Your task to perform on an android device: Open Wikipedia Image 0: 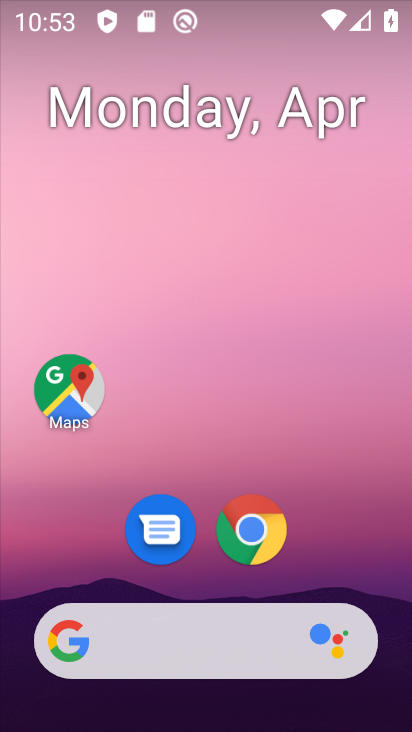
Step 0: drag from (391, 592) to (262, 66)
Your task to perform on an android device: Open Wikipedia Image 1: 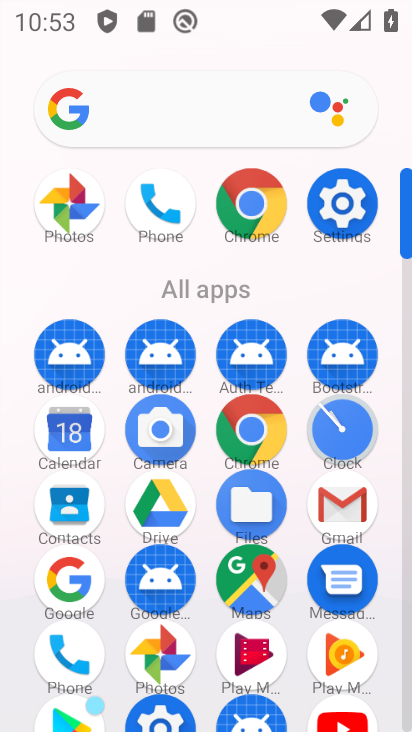
Step 1: click (261, 228)
Your task to perform on an android device: Open Wikipedia Image 2: 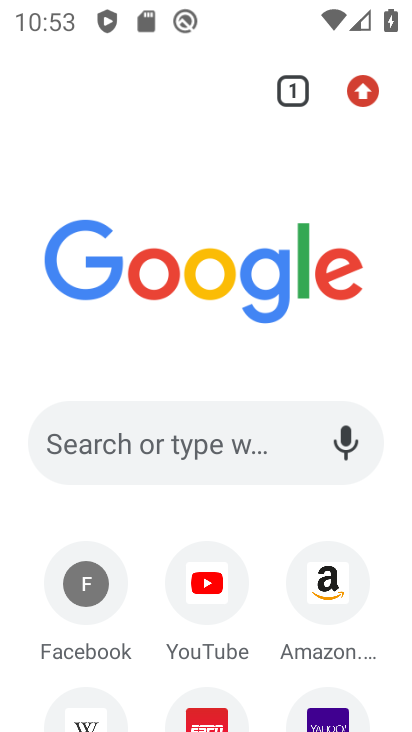
Step 2: click (201, 451)
Your task to perform on an android device: Open Wikipedia Image 3: 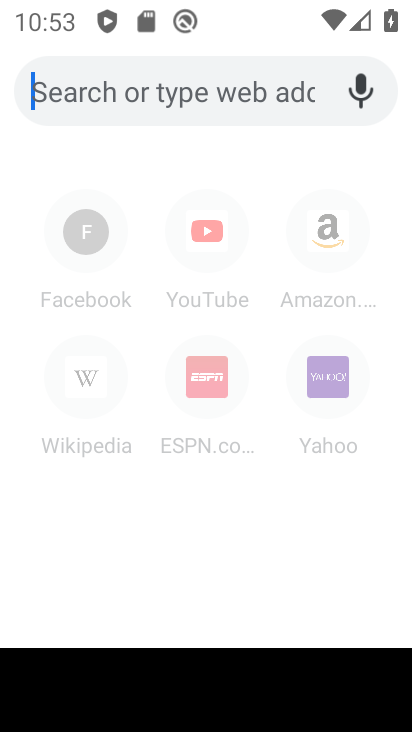
Step 3: type "wikipedia"
Your task to perform on an android device: Open Wikipedia Image 4: 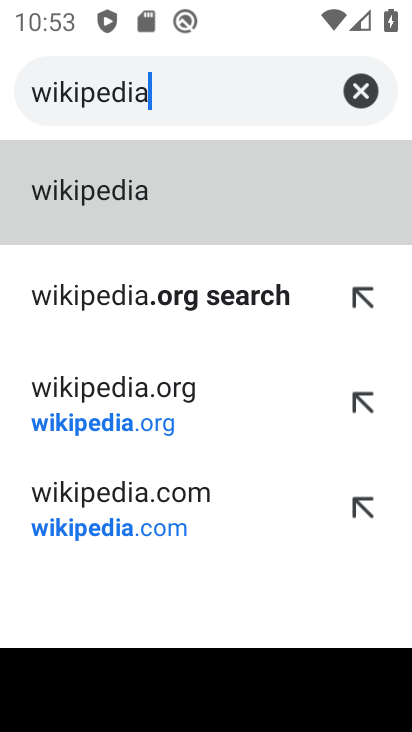
Step 4: click (254, 207)
Your task to perform on an android device: Open Wikipedia Image 5: 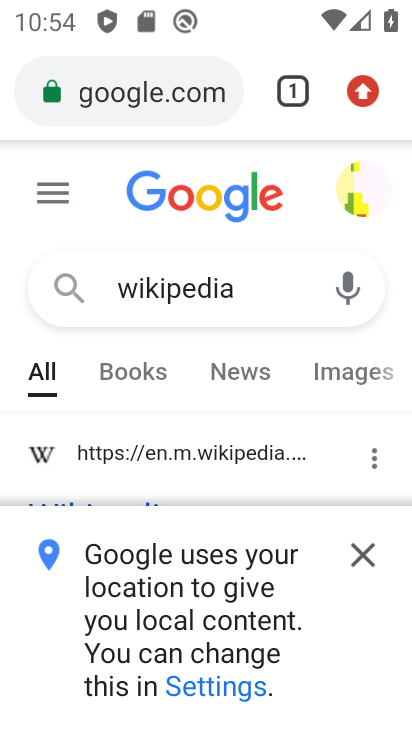
Step 5: task complete